Your task to perform on an android device: turn smart compose on in the gmail app Image 0: 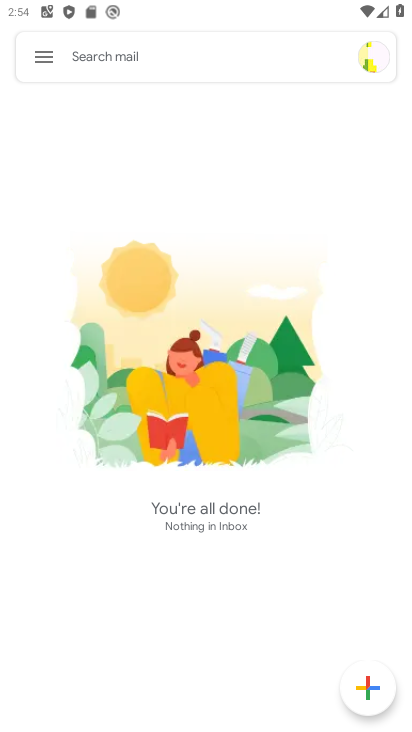
Step 0: click (41, 54)
Your task to perform on an android device: turn smart compose on in the gmail app Image 1: 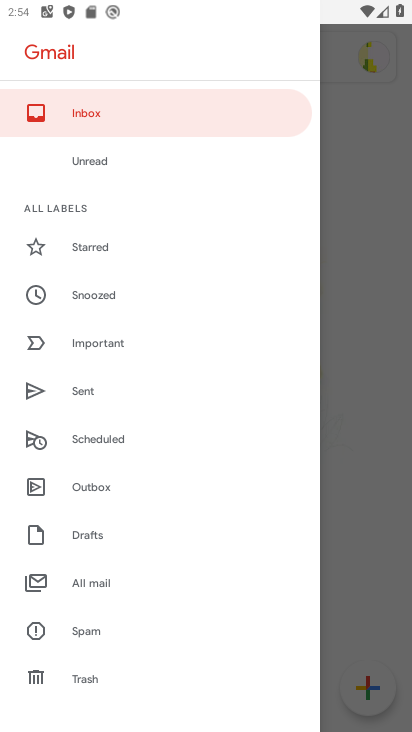
Step 1: drag from (122, 678) to (140, 154)
Your task to perform on an android device: turn smart compose on in the gmail app Image 2: 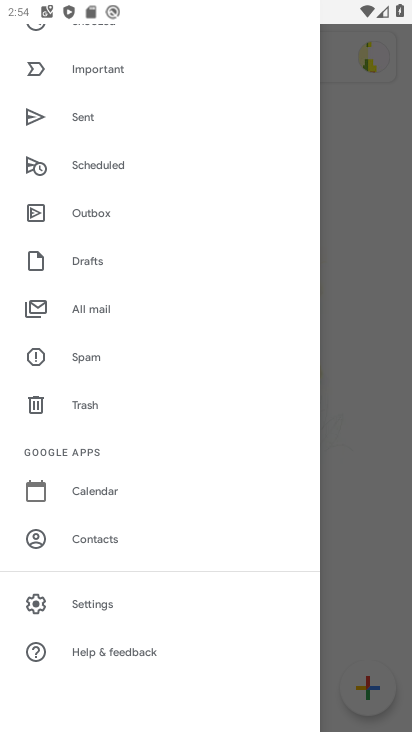
Step 2: click (85, 598)
Your task to perform on an android device: turn smart compose on in the gmail app Image 3: 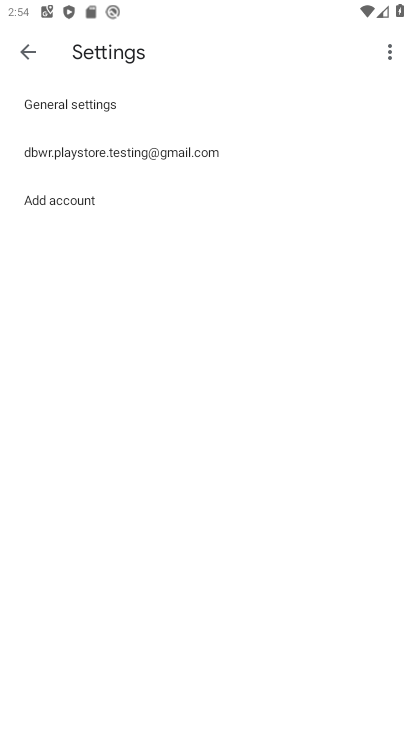
Step 3: click (157, 150)
Your task to perform on an android device: turn smart compose on in the gmail app Image 4: 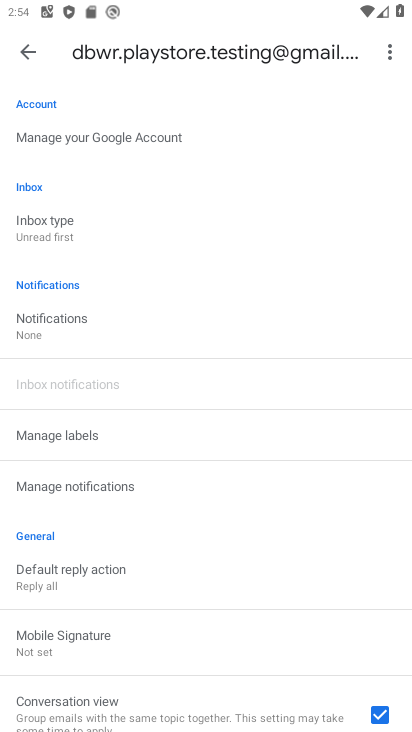
Step 4: task complete